Your task to perform on an android device: Open battery settings Image 0: 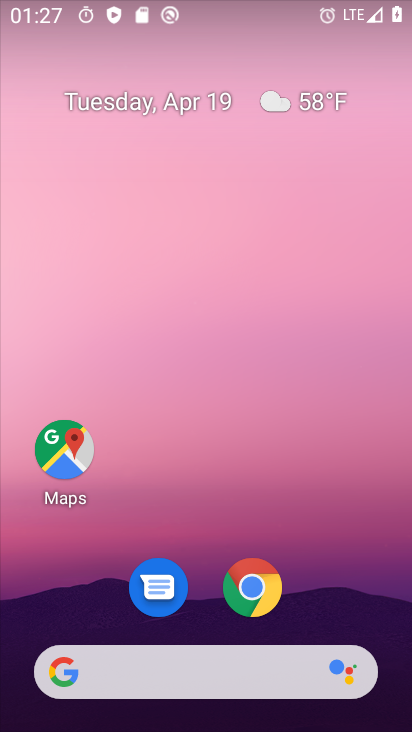
Step 0: drag from (363, 570) to (331, 218)
Your task to perform on an android device: Open battery settings Image 1: 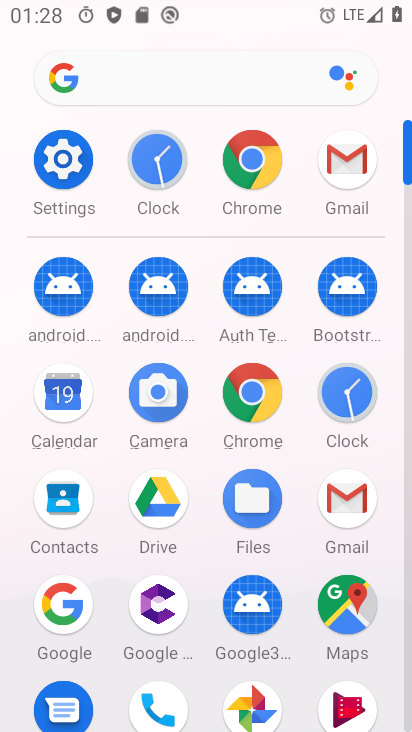
Step 1: click (61, 180)
Your task to perform on an android device: Open battery settings Image 2: 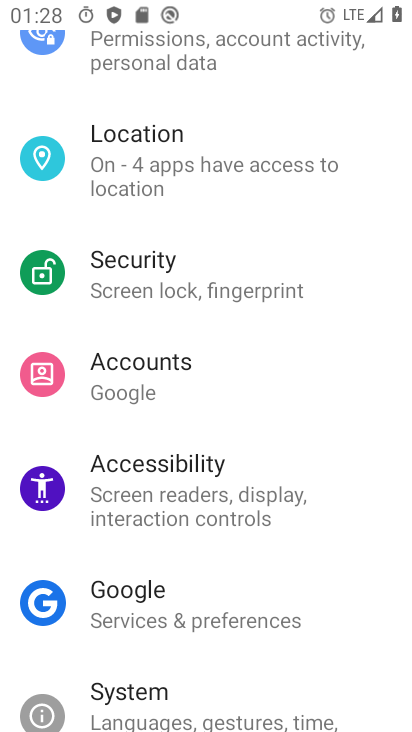
Step 2: drag from (239, 562) to (278, 296)
Your task to perform on an android device: Open battery settings Image 3: 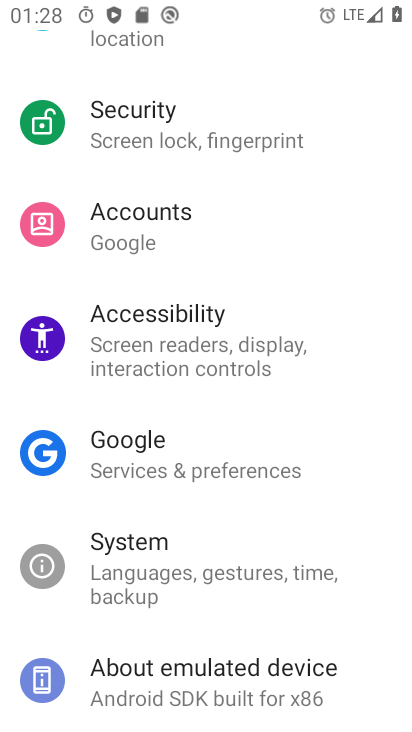
Step 3: drag from (265, 135) to (320, 709)
Your task to perform on an android device: Open battery settings Image 4: 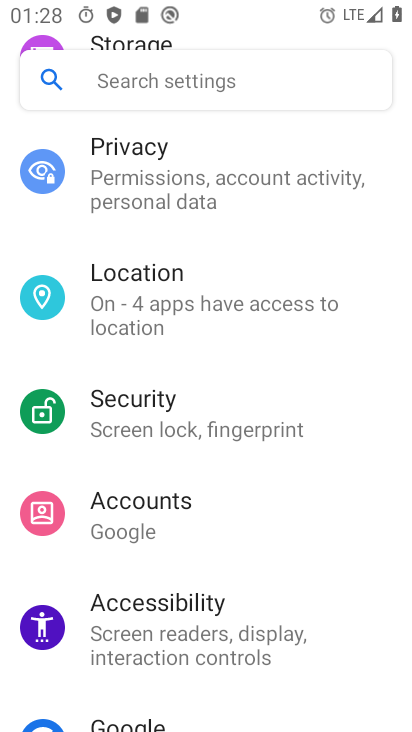
Step 4: drag from (290, 409) to (336, 607)
Your task to perform on an android device: Open battery settings Image 5: 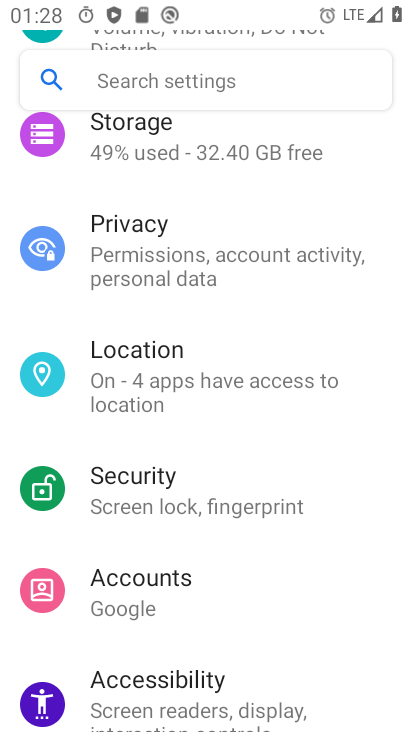
Step 5: drag from (272, 199) to (336, 443)
Your task to perform on an android device: Open battery settings Image 6: 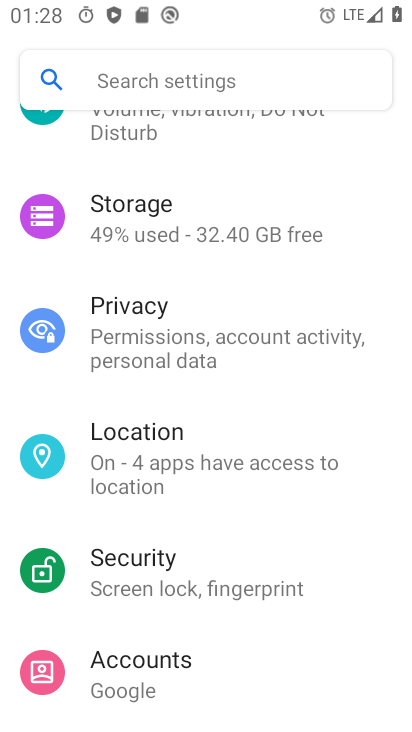
Step 6: drag from (261, 196) to (273, 578)
Your task to perform on an android device: Open battery settings Image 7: 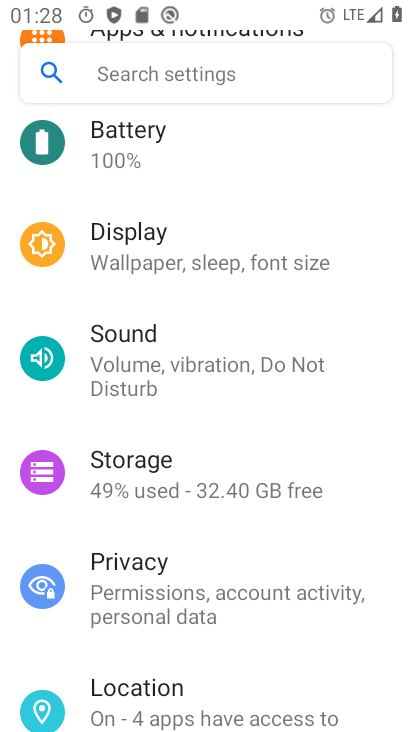
Step 7: click (144, 134)
Your task to perform on an android device: Open battery settings Image 8: 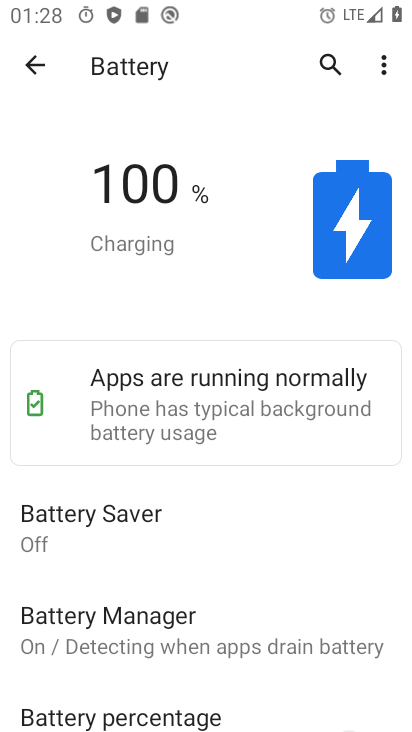
Step 8: task complete